Your task to perform on an android device: make emails show in primary in the gmail app Image 0: 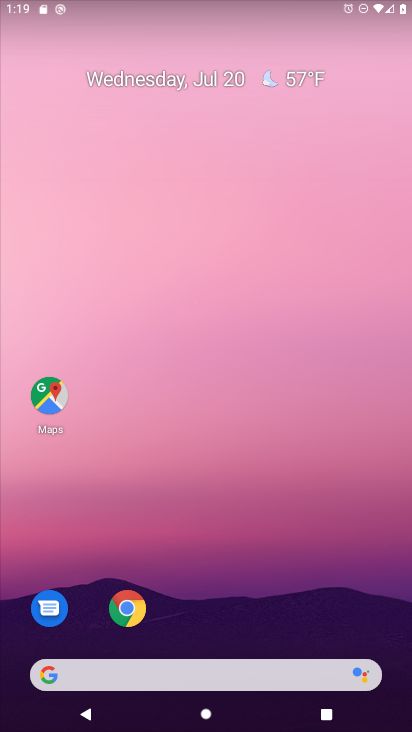
Step 0: drag from (296, 355) to (318, 237)
Your task to perform on an android device: make emails show in primary in the gmail app Image 1: 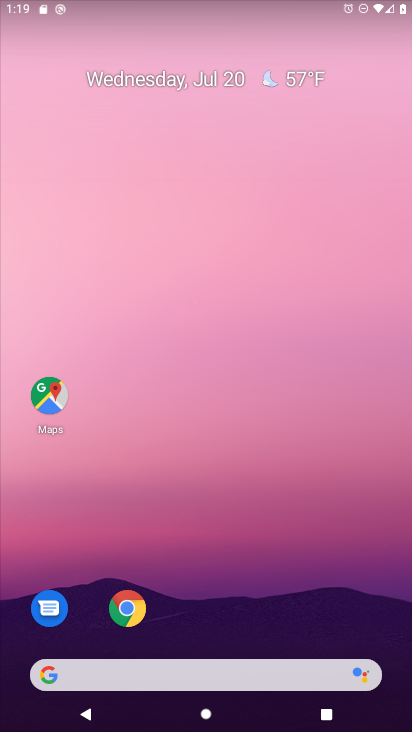
Step 1: drag from (267, 655) to (292, 119)
Your task to perform on an android device: make emails show in primary in the gmail app Image 2: 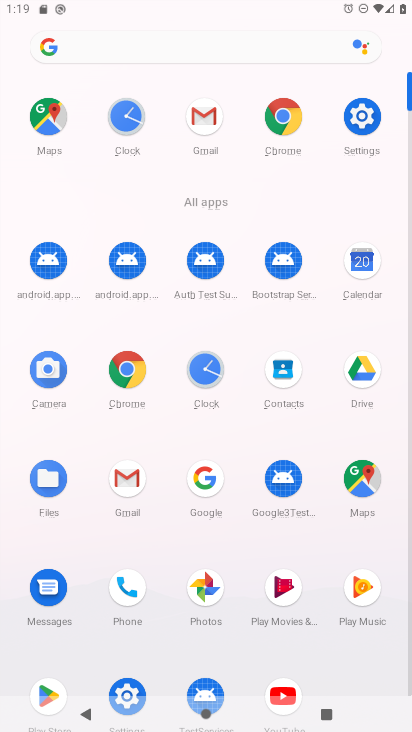
Step 2: click (204, 118)
Your task to perform on an android device: make emails show in primary in the gmail app Image 3: 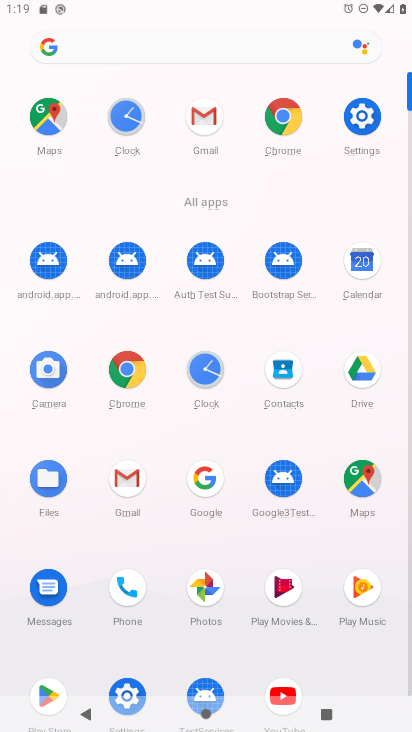
Step 3: click (204, 118)
Your task to perform on an android device: make emails show in primary in the gmail app Image 4: 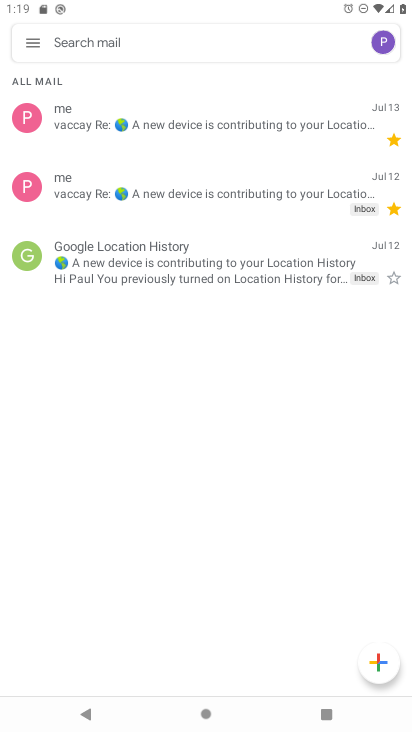
Step 4: click (34, 41)
Your task to perform on an android device: make emails show in primary in the gmail app Image 5: 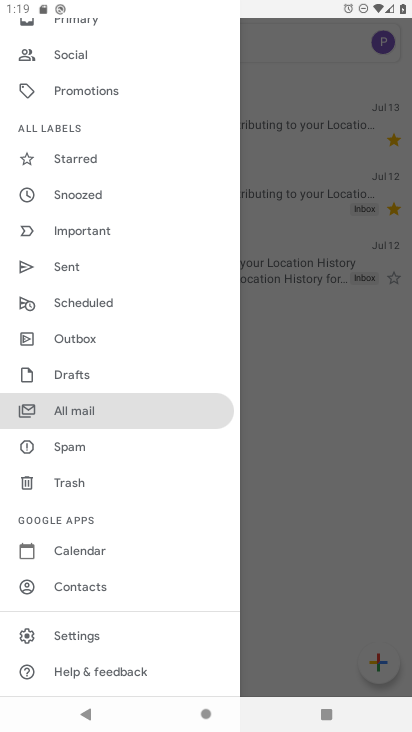
Step 5: click (89, 639)
Your task to perform on an android device: make emails show in primary in the gmail app Image 6: 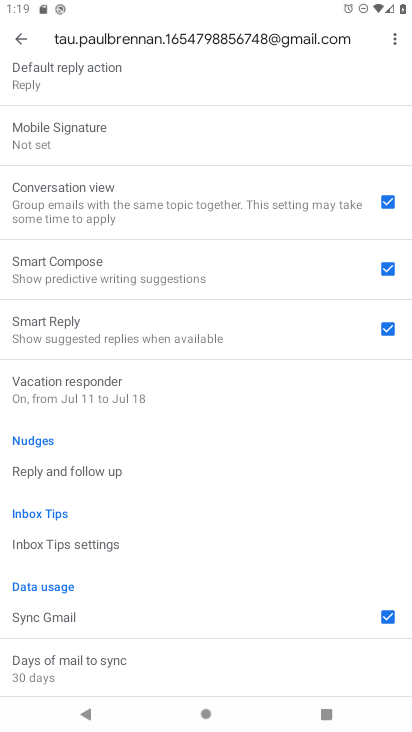
Step 6: drag from (177, 236) to (18, 727)
Your task to perform on an android device: make emails show in primary in the gmail app Image 7: 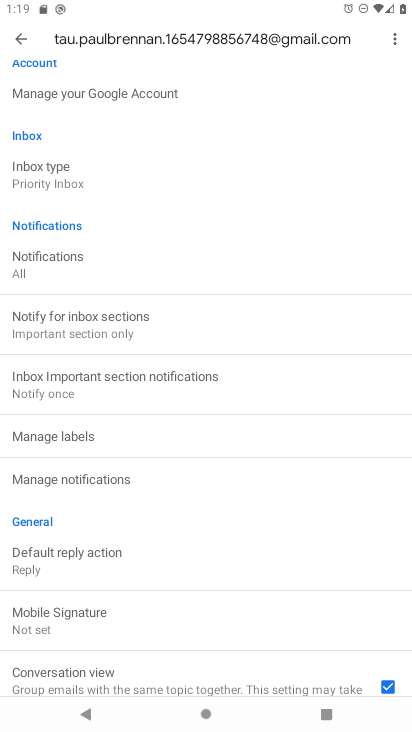
Step 7: click (53, 186)
Your task to perform on an android device: make emails show in primary in the gmail app Image 8: 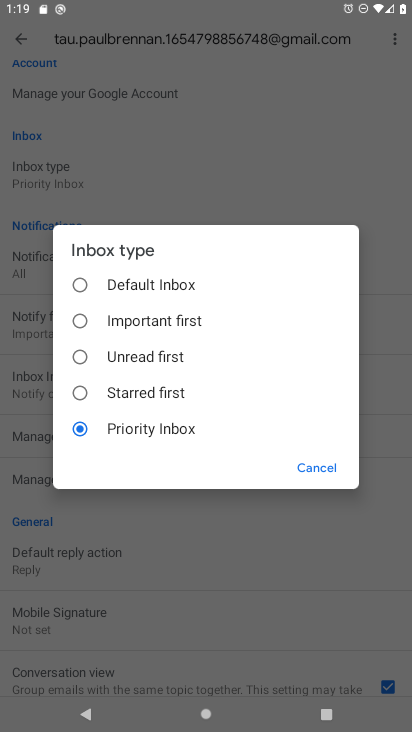
Step 8: click (144, 279)
Your task to perform on an android device: make emails show in primary in the gmail app Image 9: 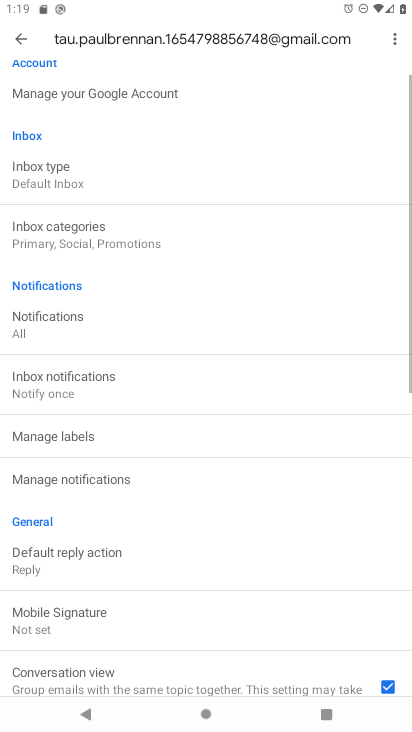
Step 9: click (86, 250)
Your task to perform on an android device: make emails show in primary in the gmail app Image 10: 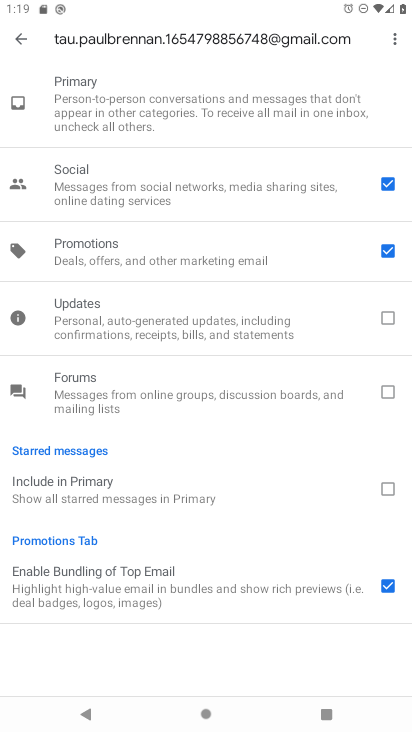
Step 10: click (390, 182)
Your task to perform on an android device: make emails show in primary in the gmail app Image 11: 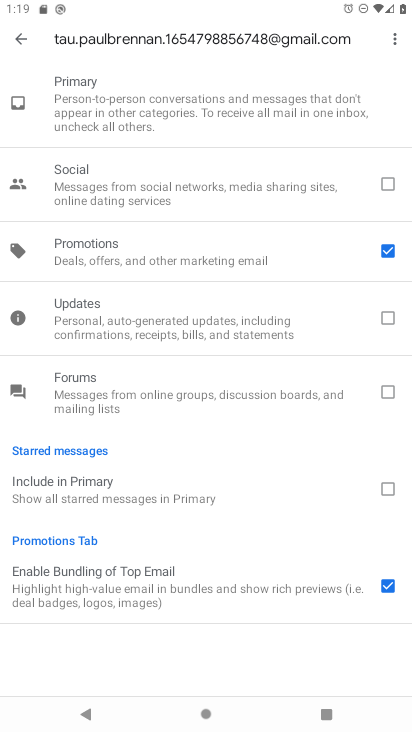
Step 11: click (392, 246)
Your task to perform on an android device: make emails show in primary in the gmail app Image 12: 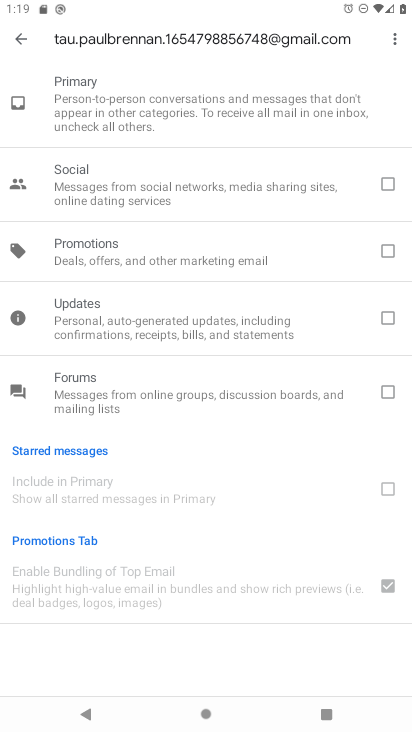
Step 12: task complete